Your task to perform on an android device: toggle priority inbox in the gmail app Image 0: 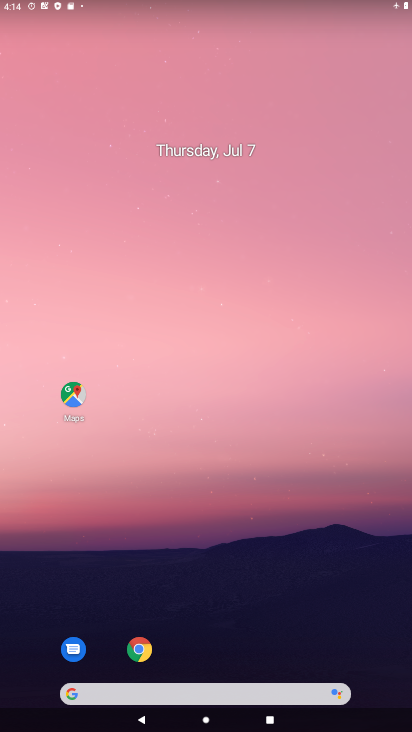
Step 0: drag from (385, 667) to (224, 3)
Your task to perform on an android device: toggle priority inbox in the gmail app Image 1: 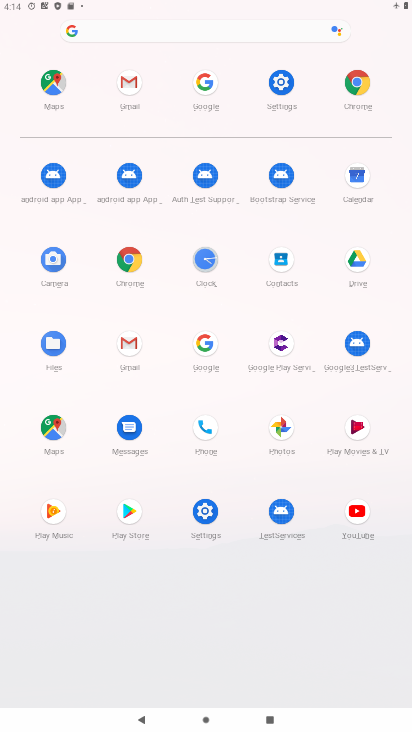
Step 1: click (121, 355)
Your task to perform on an android device: toggle priority inbox in the gmail app Image 2: 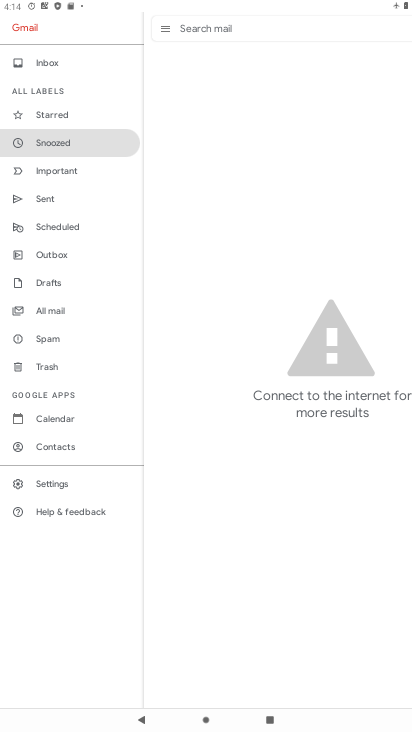
Step 2: click (39, 483)
Your task to perform on an android device: toggle priority inbox in the gmail app Image 3: 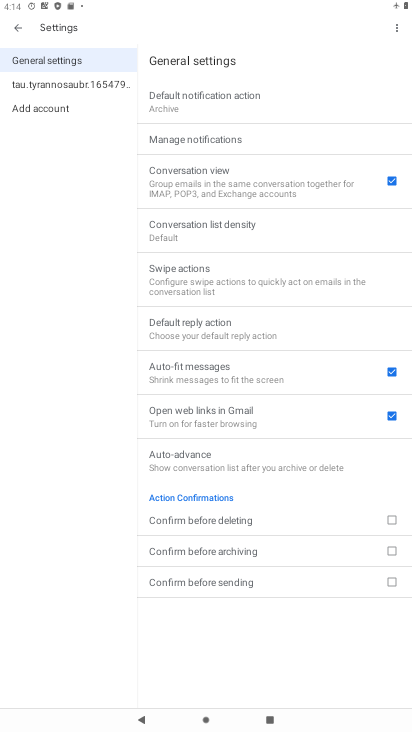
Step 3: click (73, 90)
Your task to perform on an android device: toggle priority inbox in the gmail app Image 4: 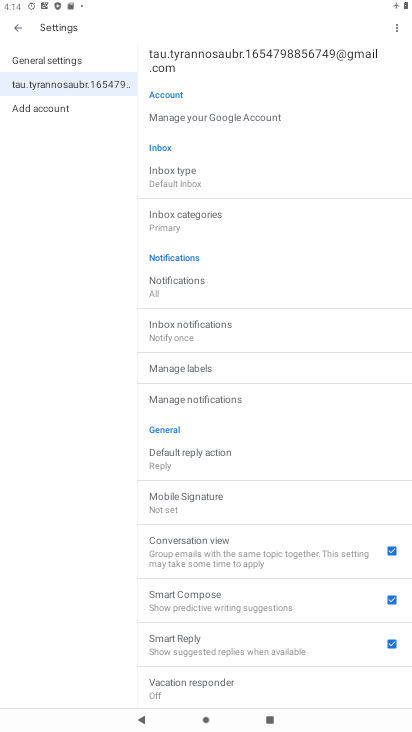
Step 4: drag from (253, 679) to (244, 311)
Your task to perform on an android device: toggle priority inbox in the gmail app Image 5: 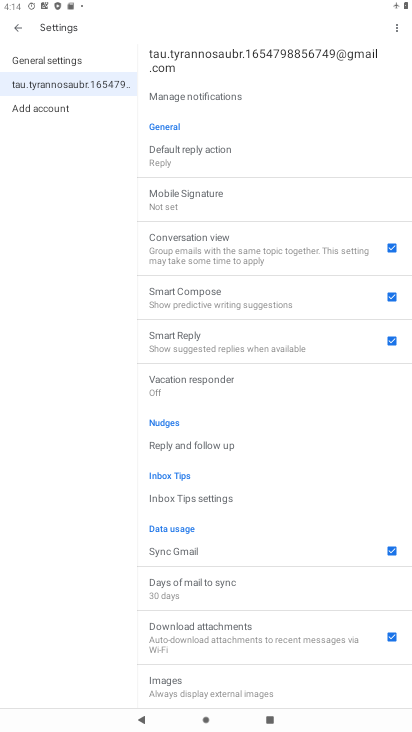
Step 5: drag from (228, 650) to (200, 243)
Your task to perform on an android device: toggle priority inbox in the gmail app Image 6: 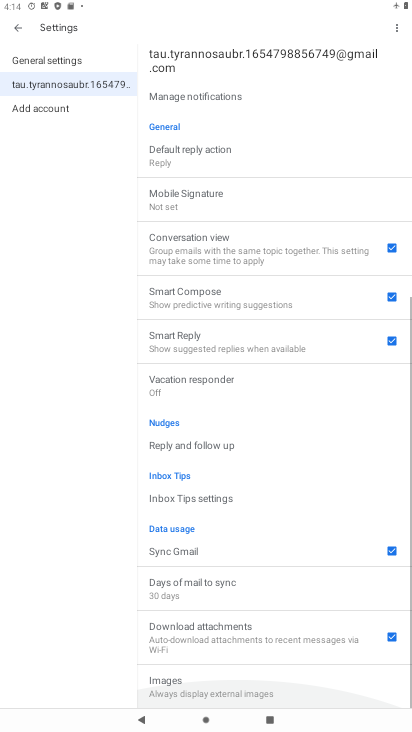
Step 6: drag from (200, 243) to (202, 693)
Your task to perform on an android device: toggle priority inbox in the gmail app Image 7: 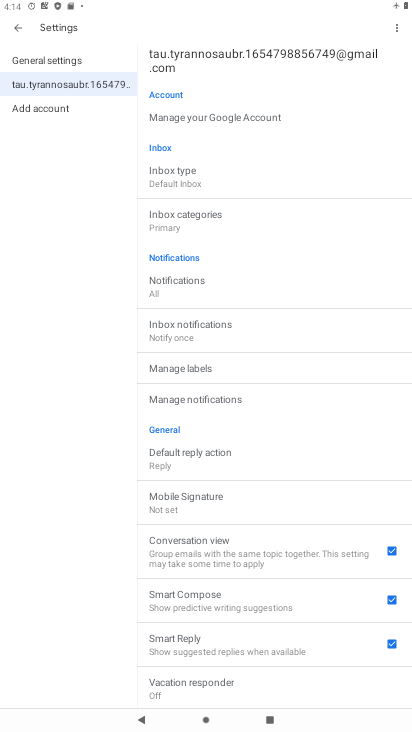
Step 7: click (176, 191)
Your task to perform on an android device: toggle priority inbox in the gmail app Image 8: 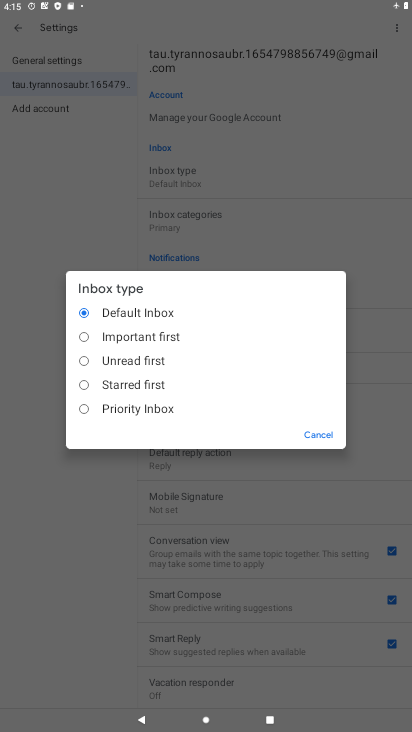
Step 8: task complete